Your task to perform on an android device: Go to battery settings Image 0: 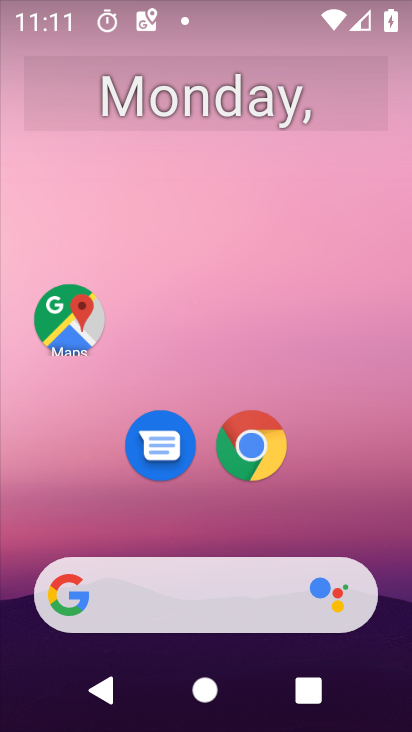
Step 0: drag from (217, 499) to (240, 56)
Your task to perform on an android device: Go to battery settings Image 1: 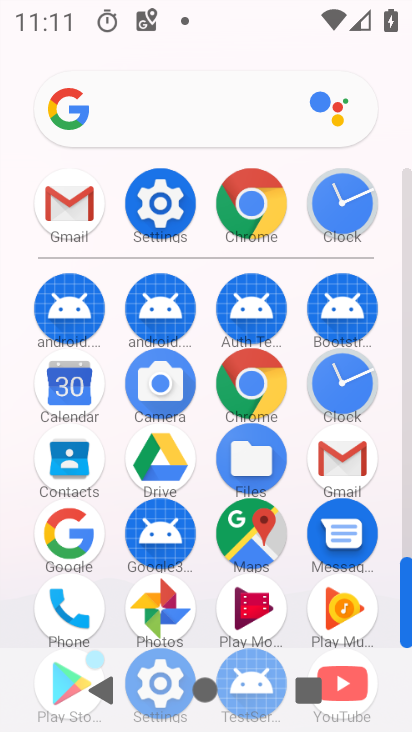
Step 1: click (154, 185)
Your task to perform on an android device: Go to battery settings Image 2: 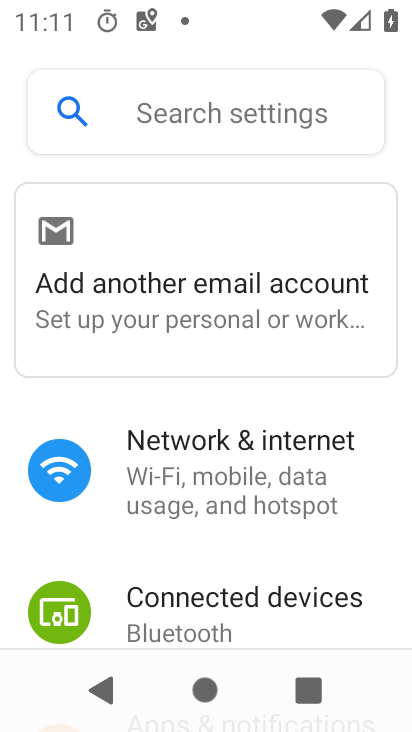
Step 2: drag from (183, 567) to (240, 140)
Your task to perform on an android device: Go to battery settings Image 3: 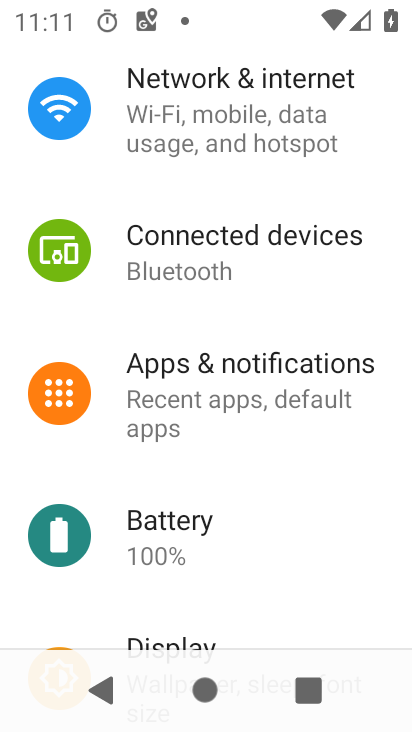
Step 3: click (146, 532)
Your task to perform on an android device: Go to battery settings Image 4: 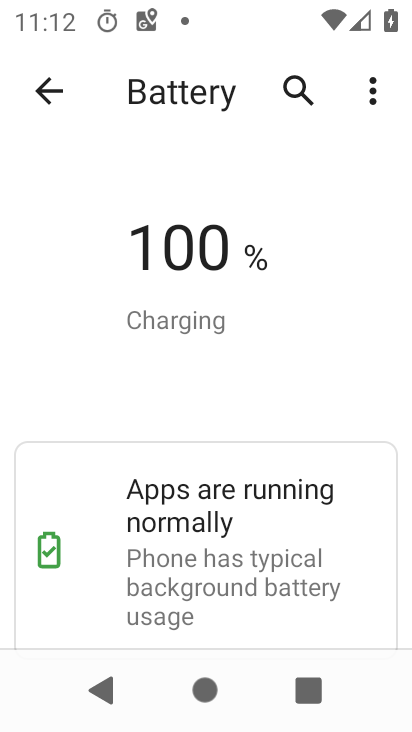
Step 4: task complete